Your task to perform on an android device: Is it going to rain tomorrow? Image 0: 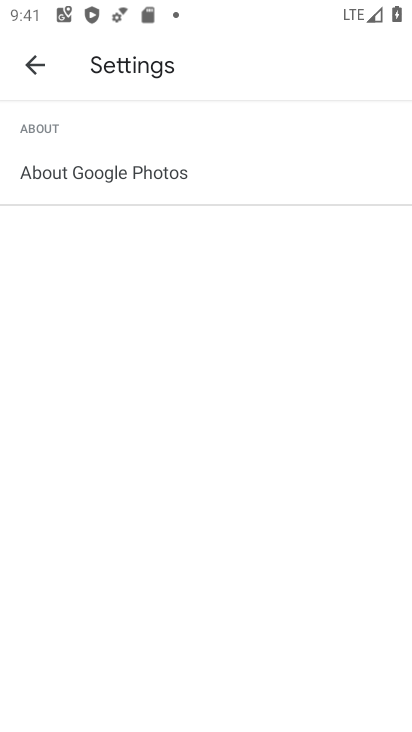
Step 0: press home button
Your task to perform on an android device: Is it going to rain tomorrow? Image 1: 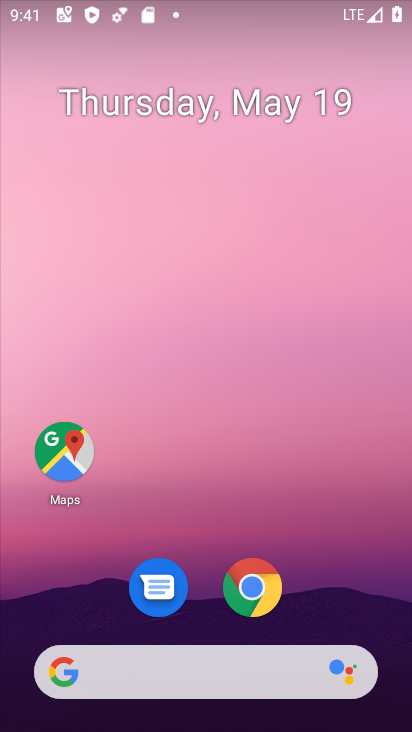
Step 1: click (220, 669)
Your task to perform on an android device: Is it going to rain tomorrow? Image 2: 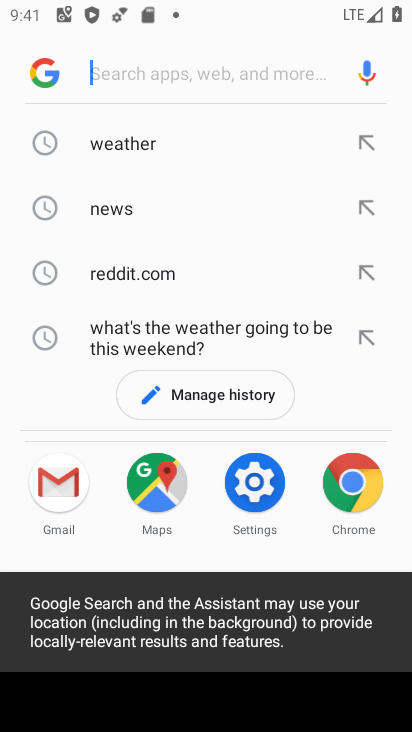
Step 2: click (127, 144)
Your task to perform on an android device: Is it going to rain tomorrow? Image 3: 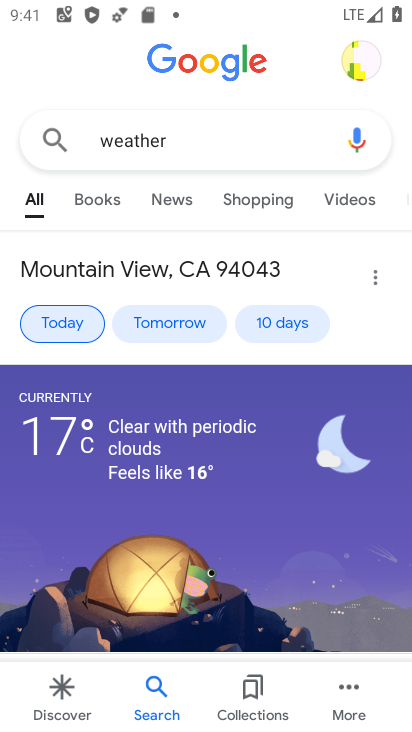
Step 3: click (167, 330)
Your task to perform on an android device: Is it going to rain tomorrow? Image 4: 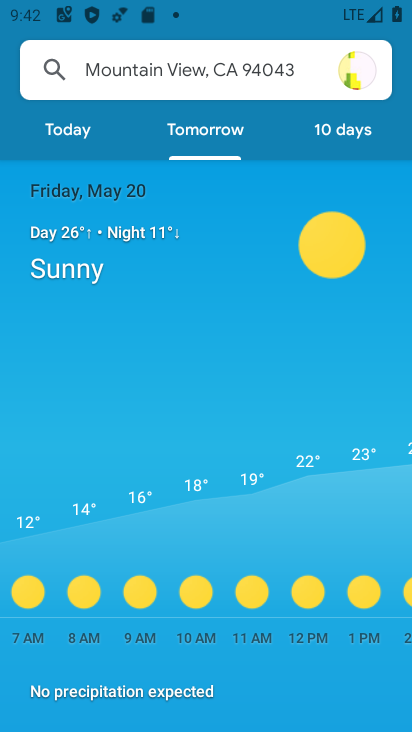
Step 4: task complete